Your task to perform on an android device: empty trash in google photos Image 0: 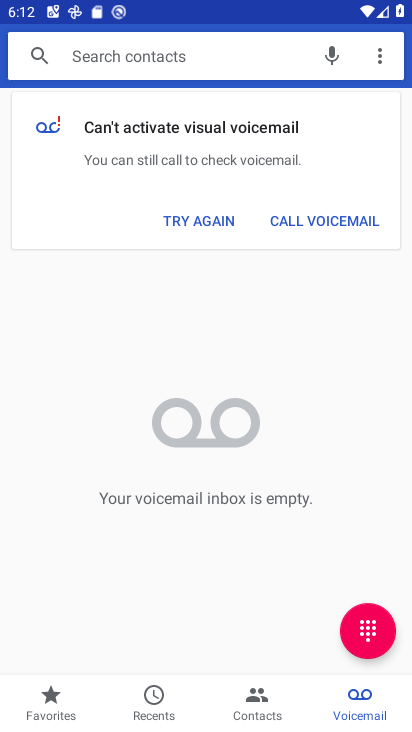
Step 0: press home button
Your task to perform on an android device: empty trash in google photos Image 1: 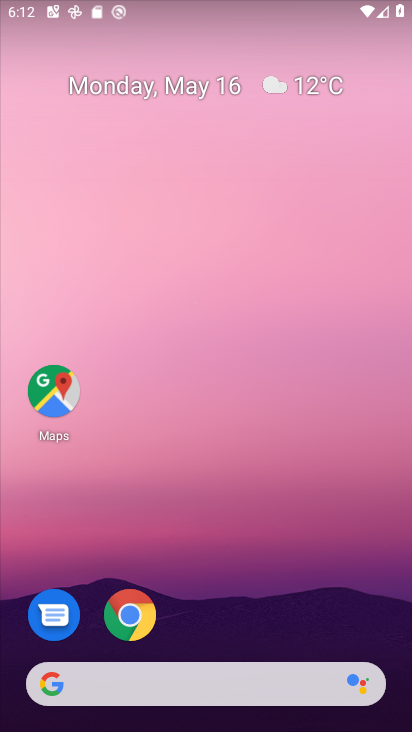
Step 1: drag from (225, 620) to (274, 242)
Your task to perform on an android device: empty trash in google photos Image 2: 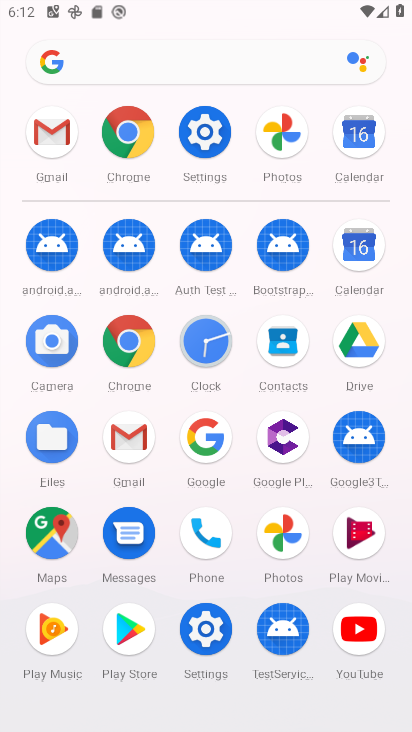
Step 2: click (287, 544)
Your task to perform on an android device: empty trash in google photos Image 3: 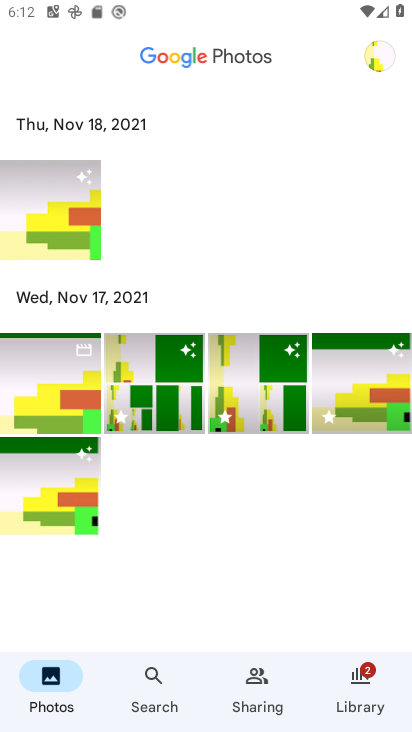
Step 3: click (354, 672)
Your task to perform on an android device: empty trash in google photos Image 4: 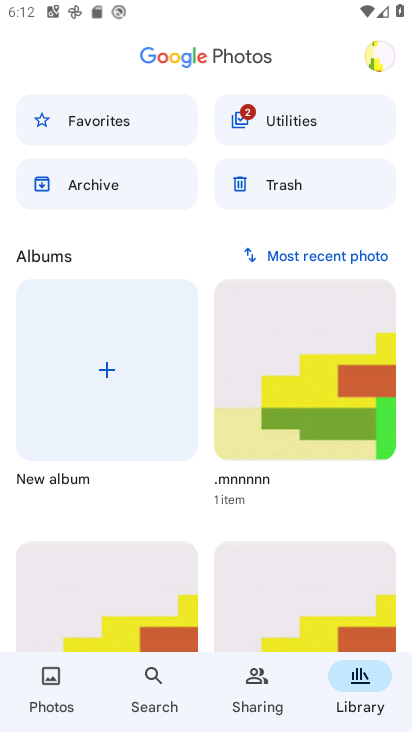
Step 4: click (272, 181)
Your task to perform on an android device: empty trash in google photos Image 5: 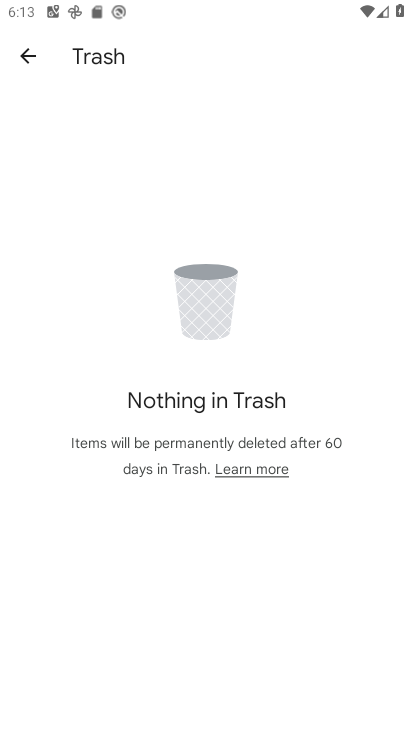
Step 5: task complete